Your task to perform on an android device: star an email in the gmail app Image 0: 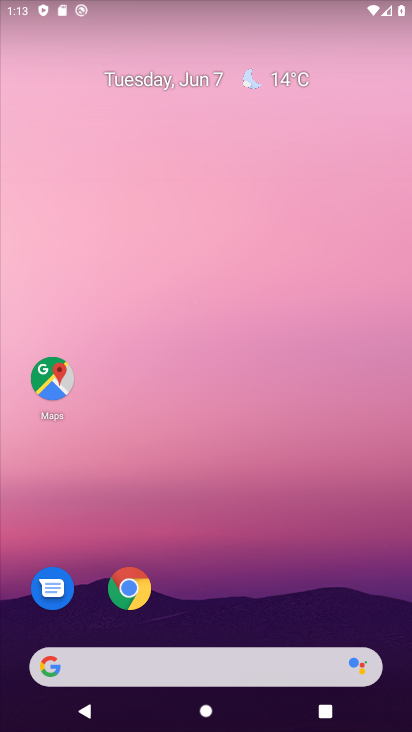
Step 0: drag from (330, 570) to (204, 44)
Your task to perform on an android device: star an email in the gmail app Image 1: 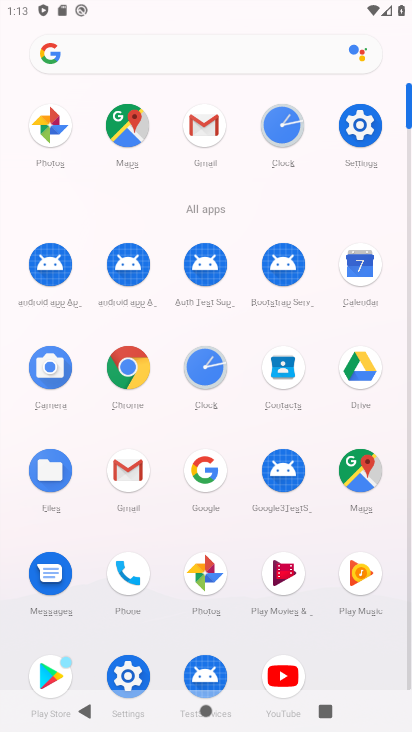
Step 1: click (132, 477)
Your task to perform on an android device: star an email in the gmail app Image 2: 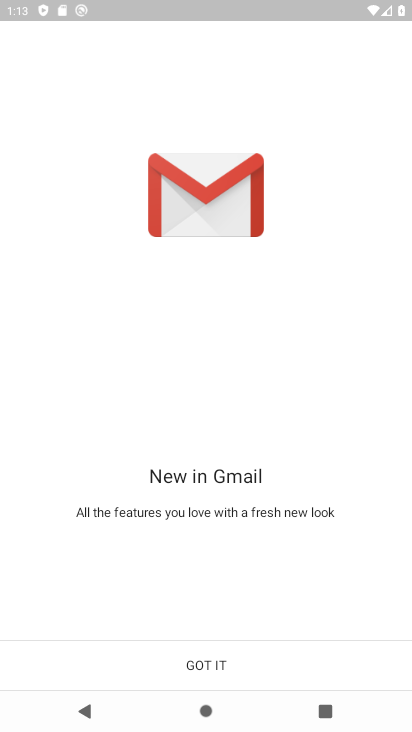
Step 2: click (246, 670)
Your task to perform on an android device: star an email in the gmail app Image 3: 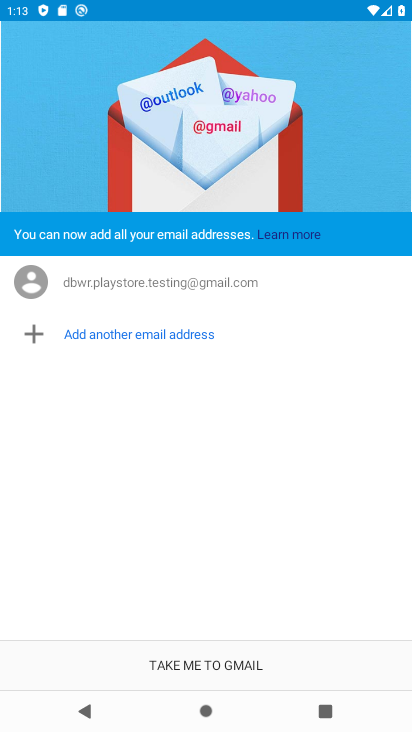
Step 3: click (240, 664)
Your task to perform on an android device: star an email in the gmail app Image 4: 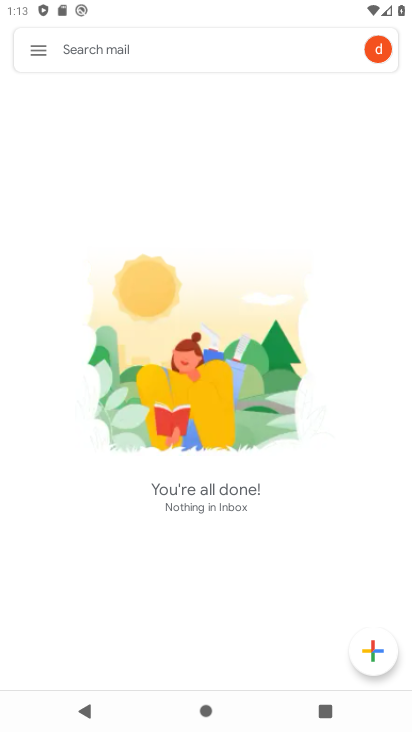
Step 4: click (38, 44)
Your task to perform on an android device: star an email in the gmail app Image 5: 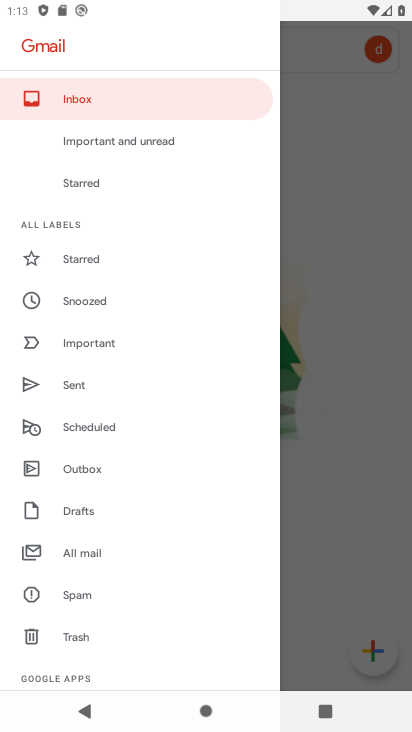
Step 5: click (129, 544)
Your task to perform on an android device: star an email in the gmail app Image 6: 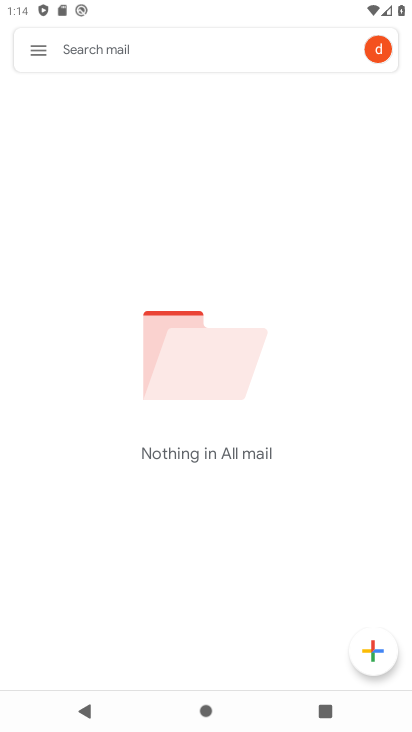
Step 6: task complete